Your task to perform on an android device: Open Google Chrome and open the bookmarks view Image 0: 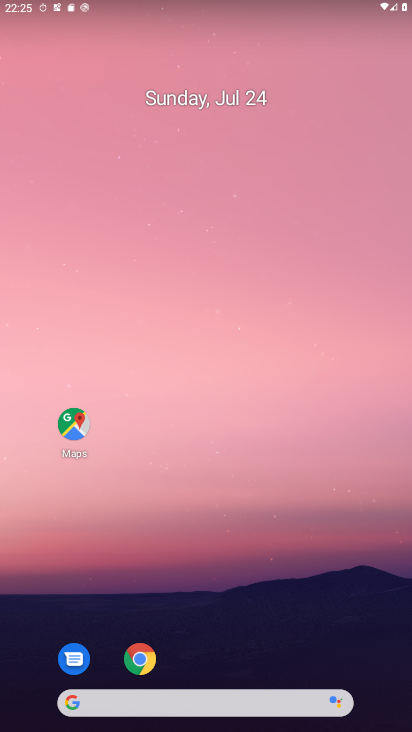
Step 0: click (138, 664)
Your task to perform on an android device: Open Google Chrome and open the bookmarks view Image 1: 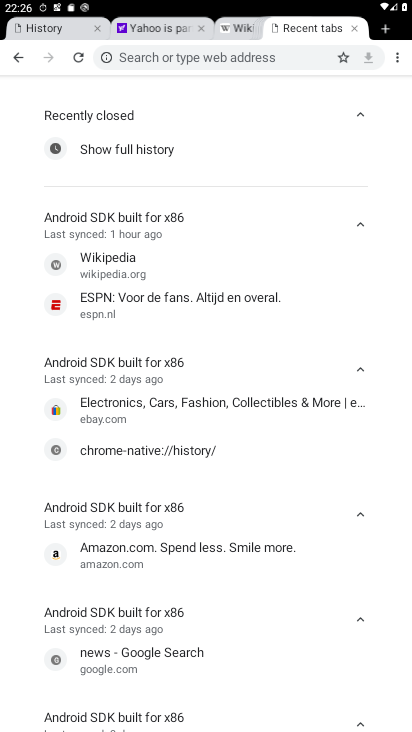
Step 1: click (397, 57)
Your task to perform on an android device: Open Google Chrome and open the bookmarks view Image 2: 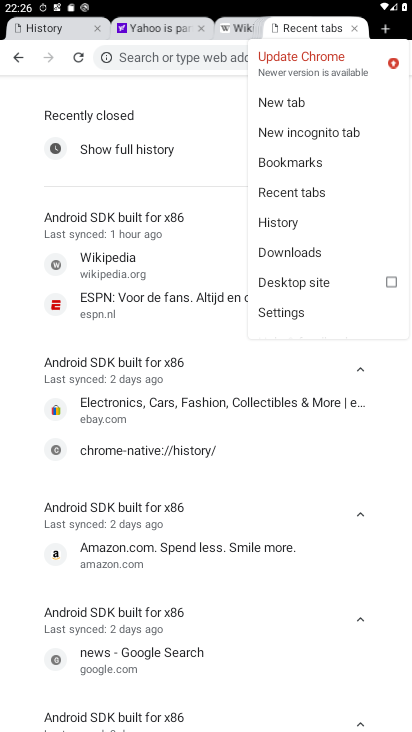
Step 2: click (297, 162)
Your task to perform on an android device: Open Google Chrome and open the bookmarks view Image 3: 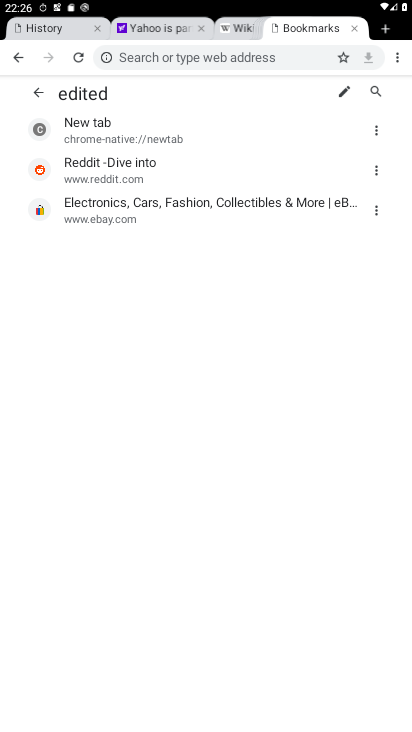
Step 3: task complete